Your task to perform on an android device: What's the weather going to be this weekend? Image 0: 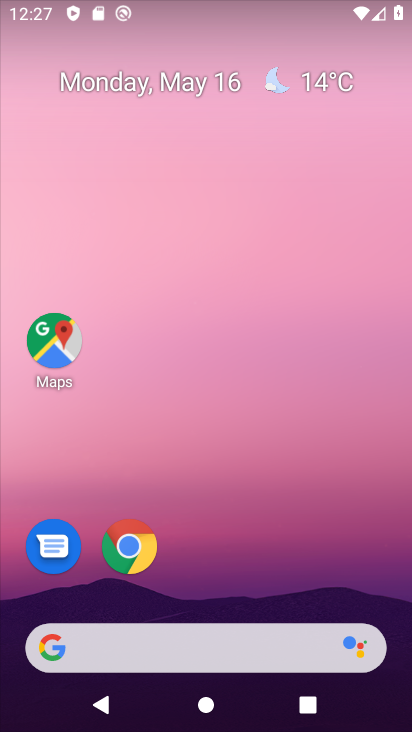
Step 0: drag from (254, 663) to (292, 111)
Your task to perform on an android device: What's the weather going to be this weekend? Image 1: 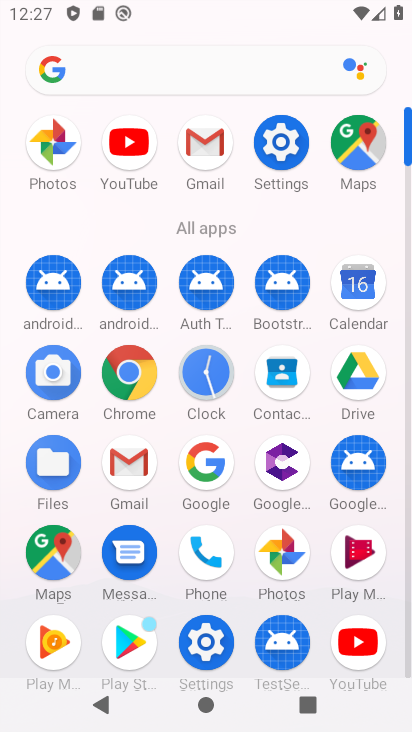
Step 1: click (136, 70)
Your task to perform on an android device: What's the weather going to be this weekend? Image 2: 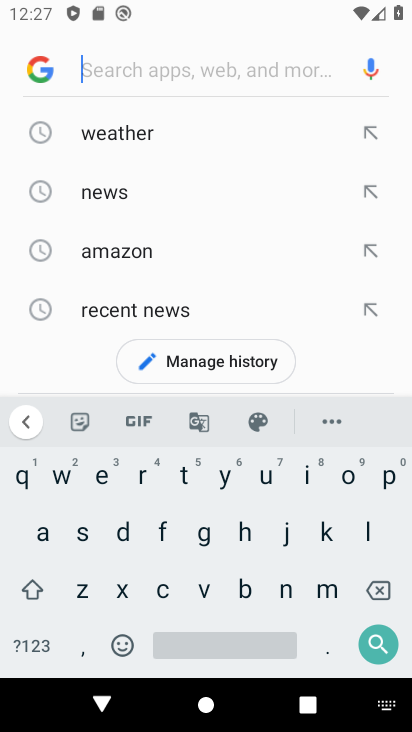
Step 2: click (115, 132)
Your task to perform on an android device: What's the weather going to be this weekend? Image 3: 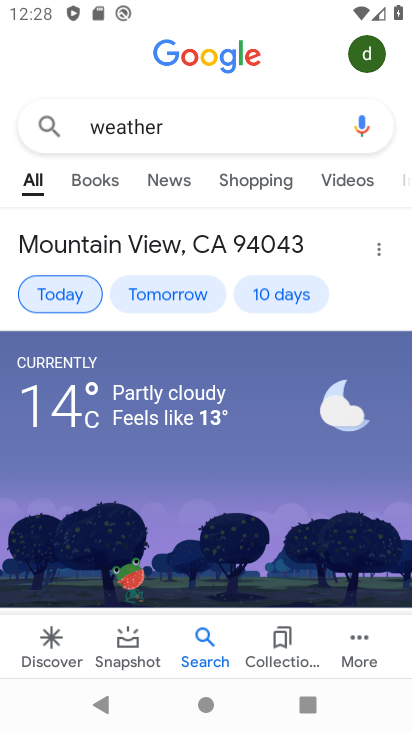
Step 3: click (257, 287)
Your task to perform on an android device: What's the weather going to be this weekend? Image 4: 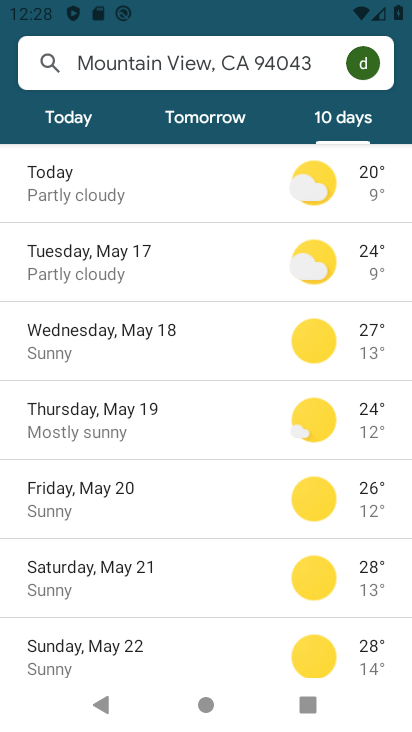
Step 4: task complete